Your task to perform on an android device: turn on improve location accuracy Image 0: 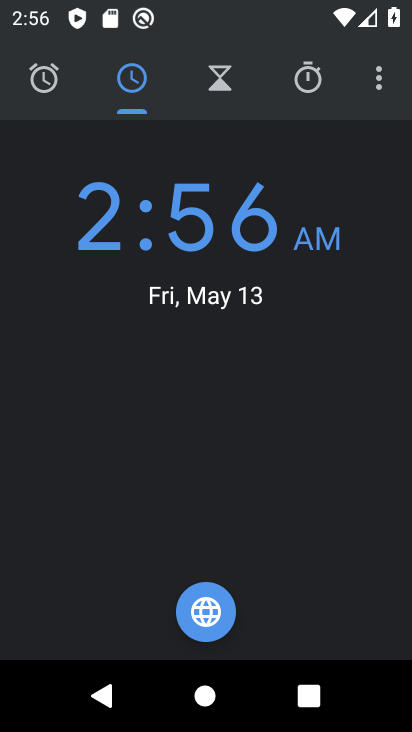
Step 0: press home button
Your task to perform on an android device: turn on improve location accuracy Image 1: 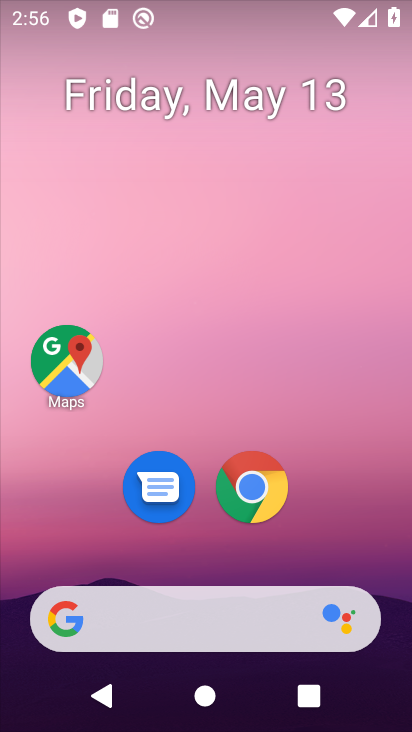
Step 1: drag from (350, 529) to (406, 98)
Your task to perform on an android device: turn on improve location accuracy Image 2: 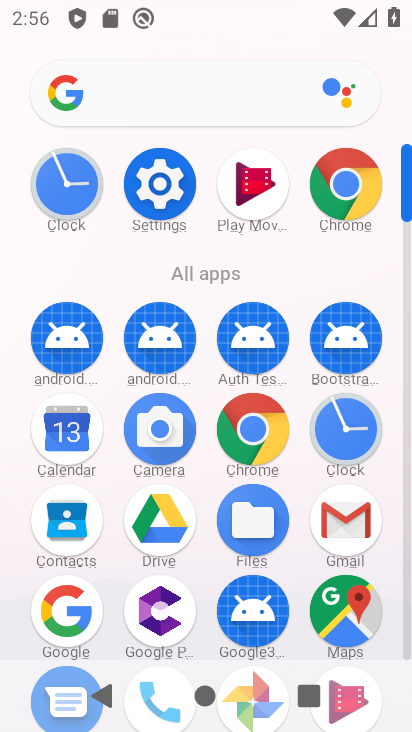
Step 2: click (173, 198)
Your task to perform on an android device: turn on improve location accuracy Image 3: 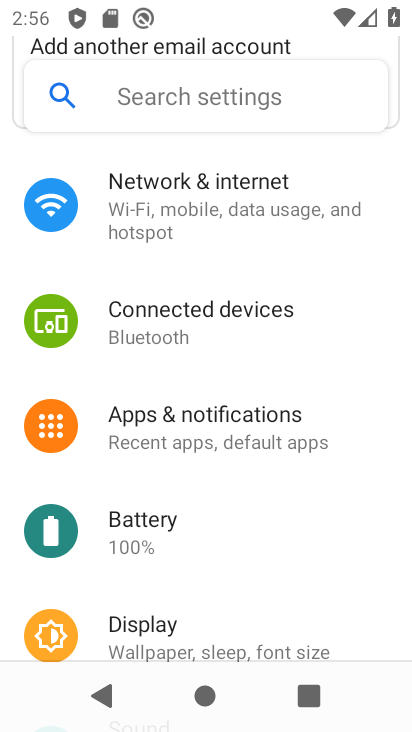
Step 3: drag from (262, 539) to (223, 206)
Your task to perform on an android device: turn on improve location accuracy Image 4: 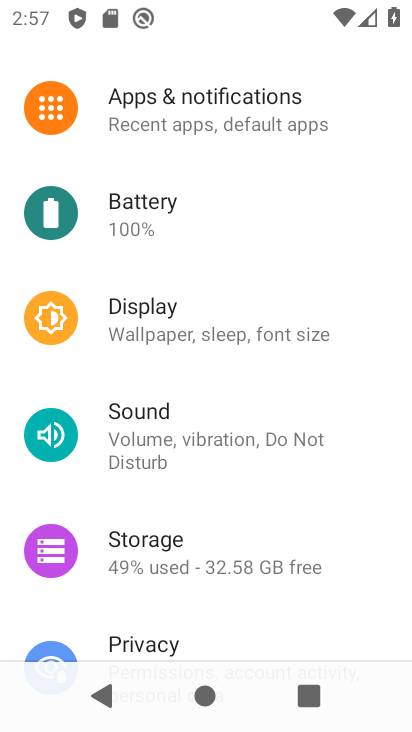
Step 4: drag from (204, 592) to (236, 247)
Your task to perform on an android device: turn on improve location accuracy Image 5: 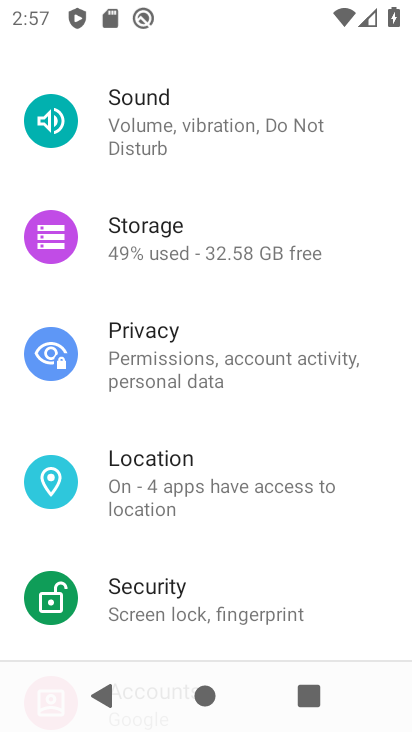
Step 5: click (210, 474)
Your task to perform on an android device: turn on improve location accuracy Image 6: 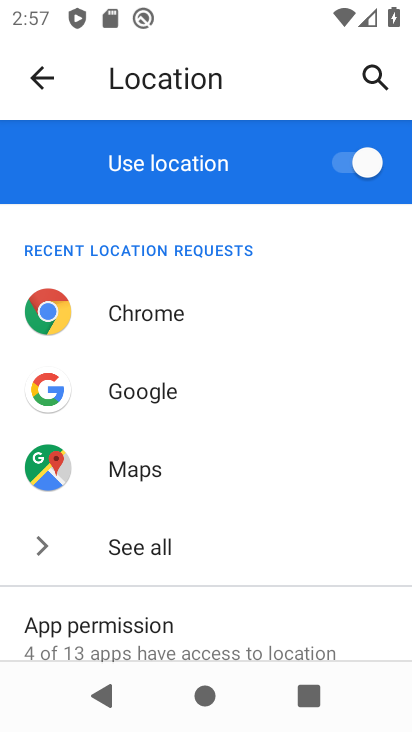
Step 6: drag from (210, 477) to (237, 202)
Your task to perform on an android device: turn on improve location accuracy Image 7: 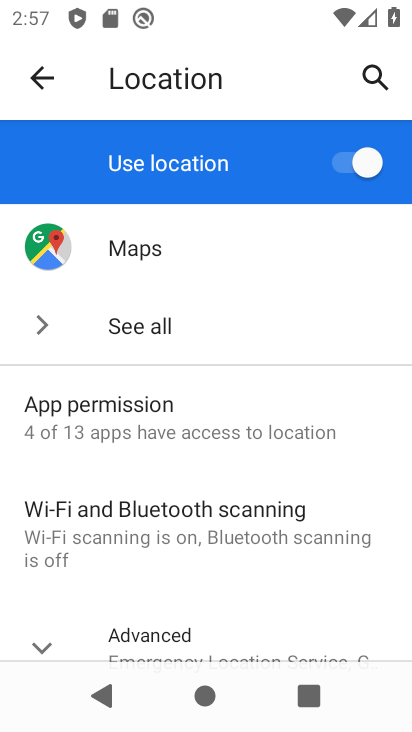
Step 7: drag from (250, 571) to (271, 253)
Your task to perform on an android device: turn on improve location accuracy Image 8: 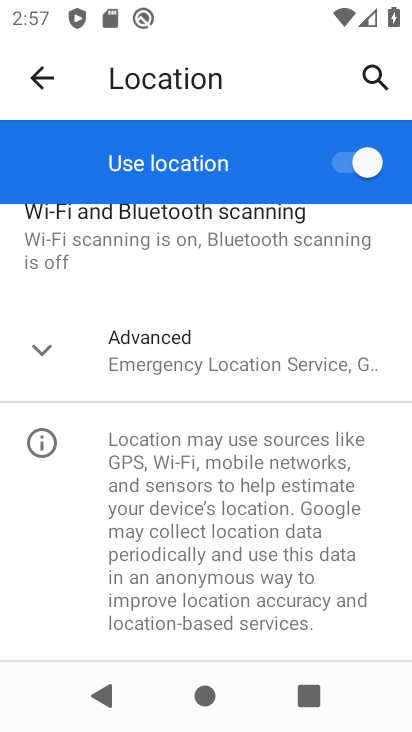
Step 8: click (190, 353)
Your task to perform on an android device: turn on improve location accuracy Image 9: 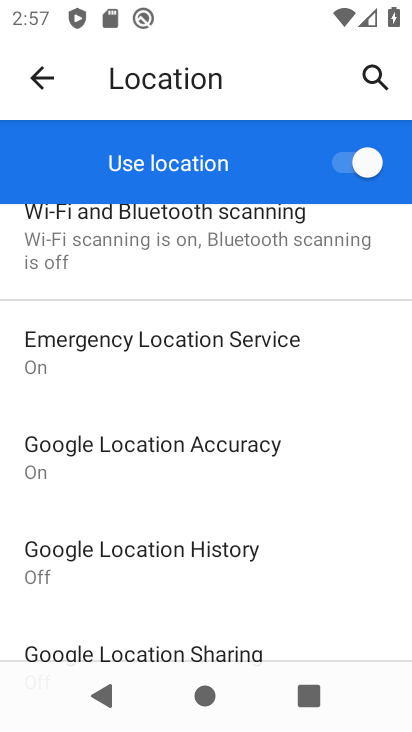
Step 9: click (218, 451)
Your task to perform on an android device: turn on improve location accuracy Image 10: 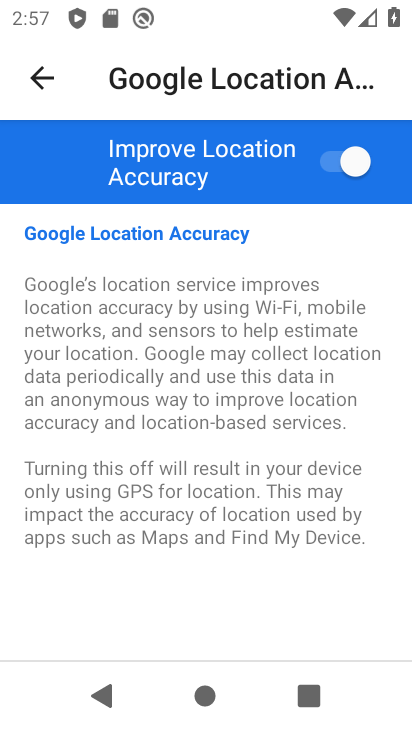
Step 10: task complete